Your task to perform on an android device: Check the news Image 0: 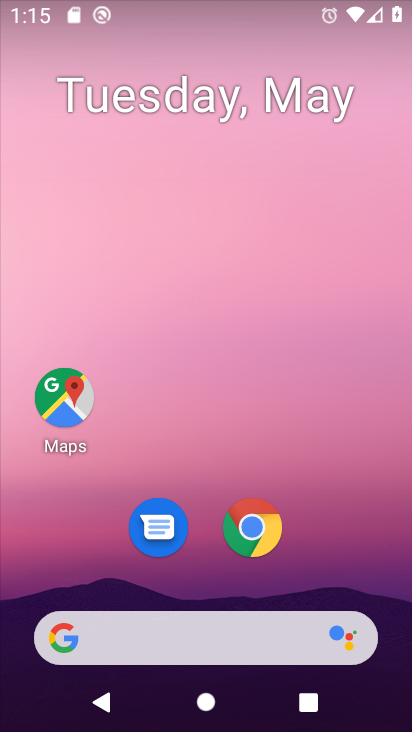
Step 0: click (238, 648)
Your task to perform on an android device: Check the news Image 1: 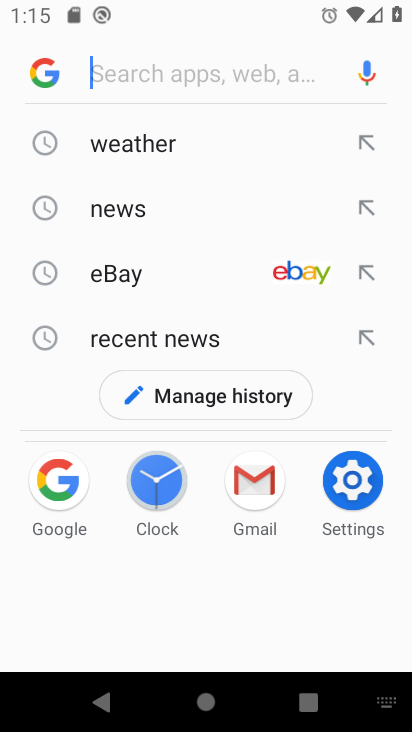
Step 1: type "news"
Your task to perform on an android device: Check the news Image 2: 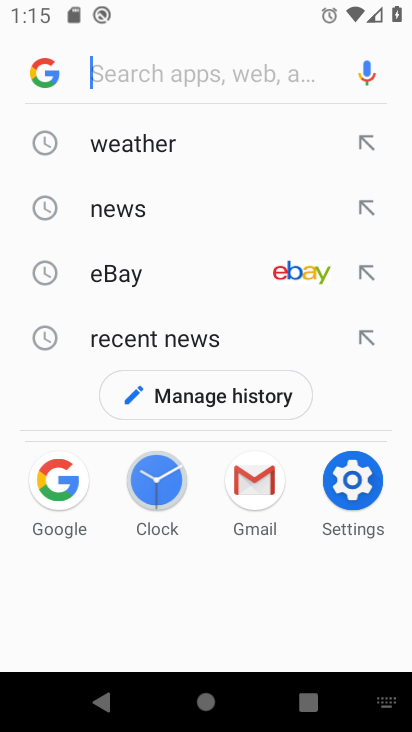
Step 2: click (176, 210)
Your task to perform on an android device: Check the news Image 3: 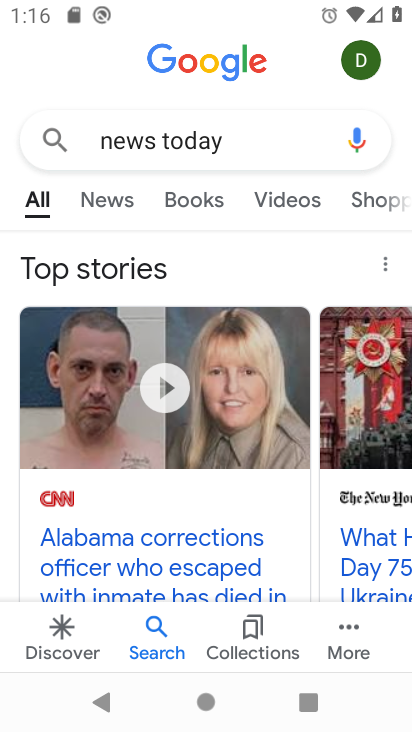
Step 3: task complete